Your task to perform on an android device: open a bookmark in the chrome app Image 0: 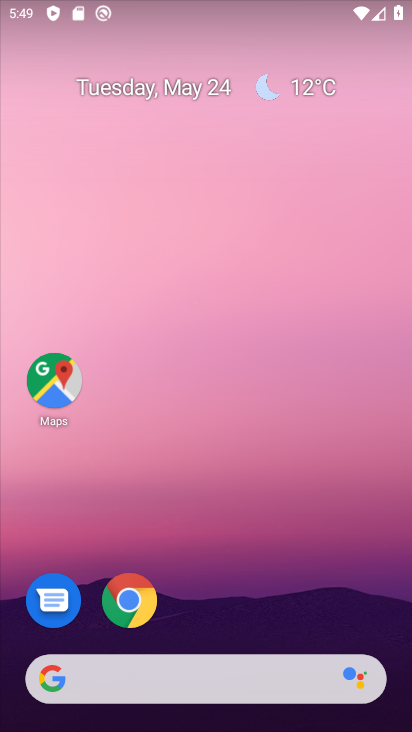
Step 0: drag from (223, 671) to (209, 51)
Your task to perform on an android device: open a bookmark in the chrome app Image 1: 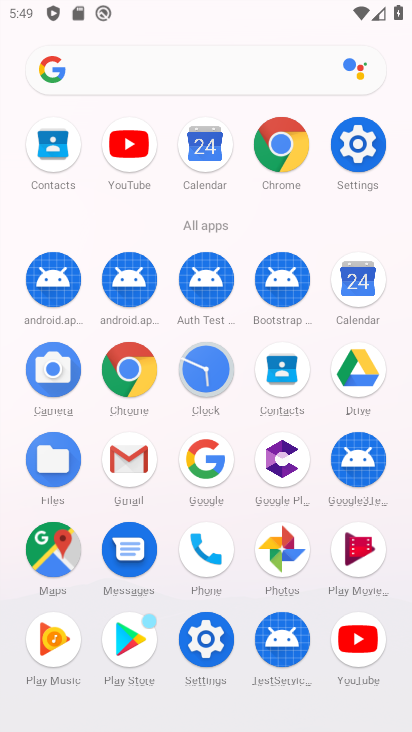
Step 1: click (123, 381)
Your task to perform on an android device: open a bookmark in the chrome app Image 2: 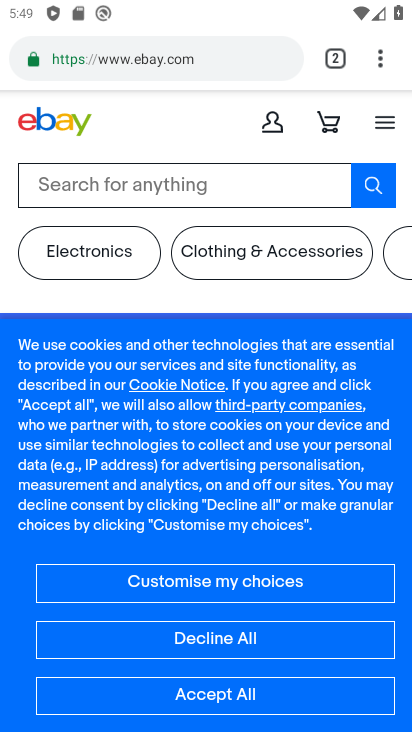
Step 2: task complete